Your task to perform on an android device: Open battery settings Image 0: 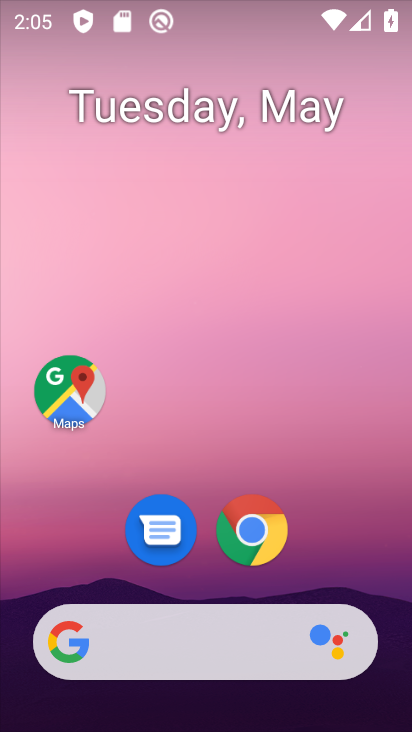
Step 0: drag from (14, 646) to (215, 95)
Your task to perform on an android device: Open battery settings Image 1: 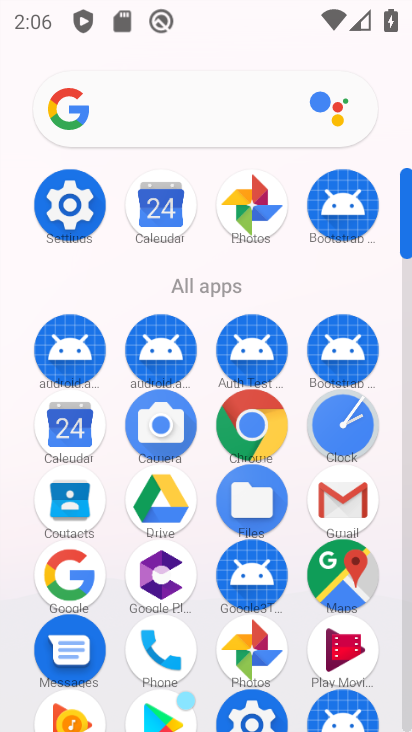
Step 1: click (79, 206)
Your task to perform on an android device: Open battery settings Image 2: 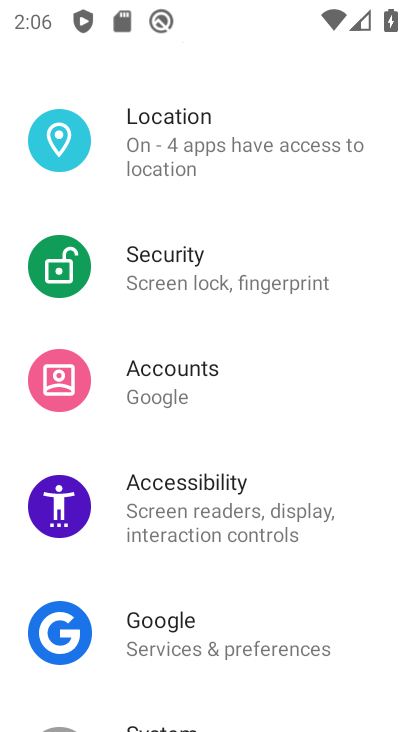
Step 2: drag from (202, 223) to (119, 612)
Your task to perform on an android device: Open battery settings Image 3: 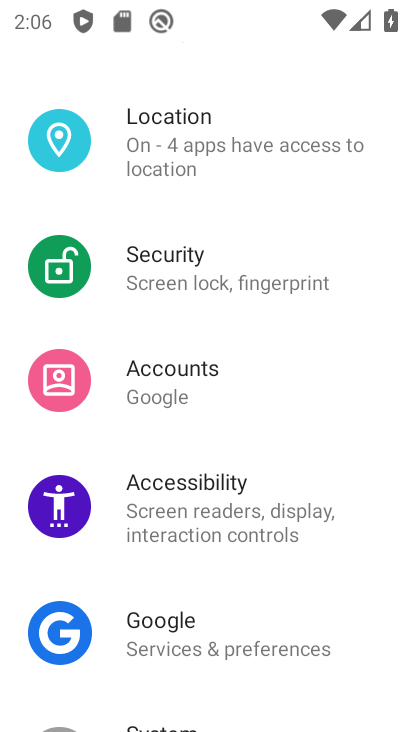
Step 3: drag from (145, 142) to (136, 508)
Your task to perform on an android device: Open battery settings Image 4: 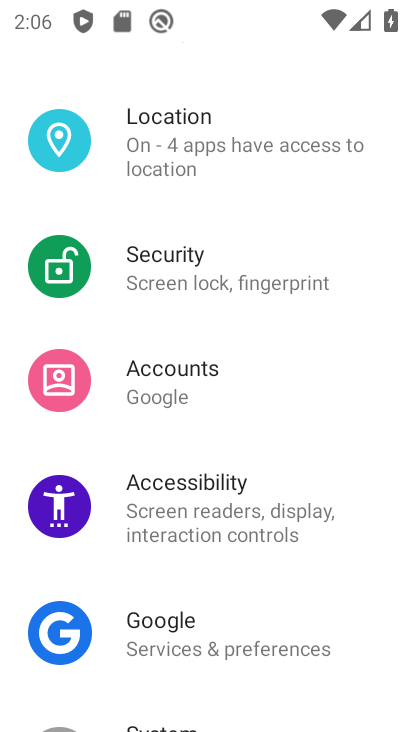
Step 4: drag from (208, 98) to (162, 479)
Your task to perform on an android device: Open battery settings Image 5: 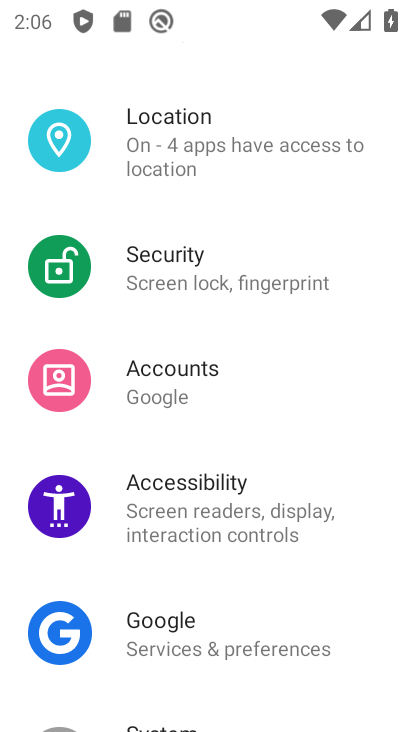
Step 5: drag from (179, 214) to (63, 686)
Your task to perform on an android device: Open battery settings Image 6: 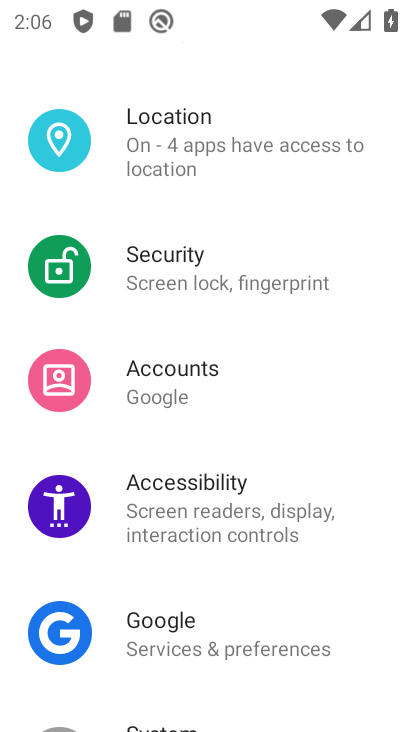
Step 6: drag from (309, 122) to (183, 565)
Your task to perform on an android device: Open battery settings Image 7: 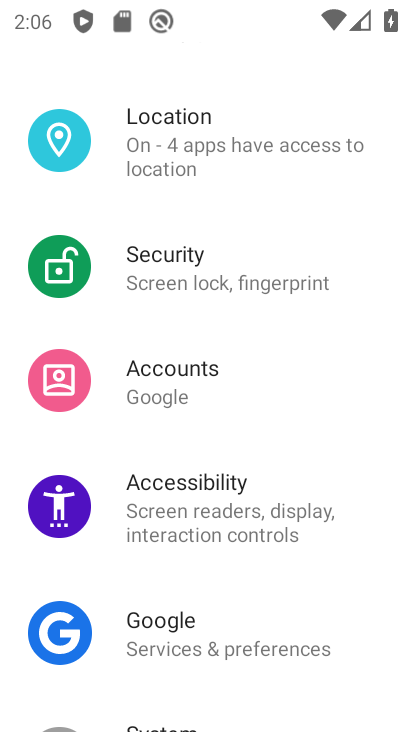
Step 7: drag from (86, 129) to (83, 567)
Your task to perform on an android device: Open battery settings Image 8: 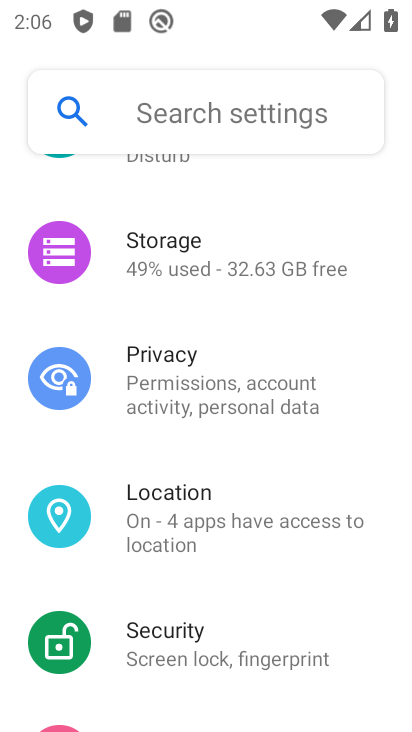
Step 8: drag from (132, 181) to (43, 575)
Your task to perform on an android device: Open battery settings Image 9: 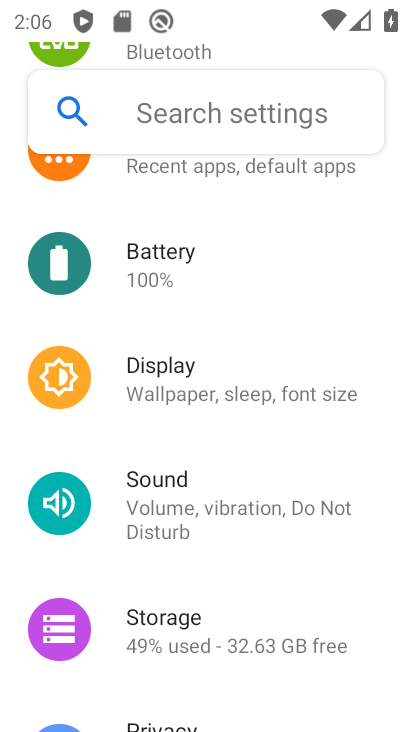
Step 9: click (191, 256)
Your task to perform on an android device: Open battery settings Image 10: 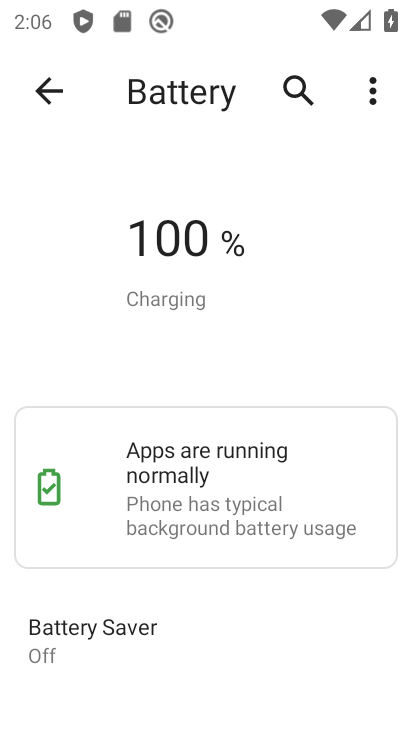
Step 10: task complete